Your task to perform on an android device: toggle notification dots Image 0: 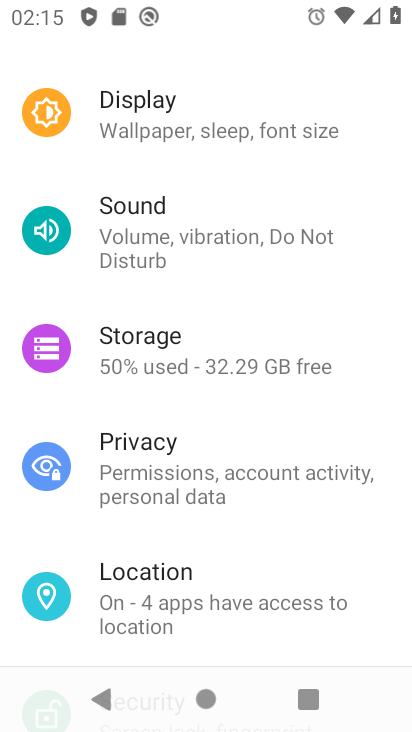
Step 0: drag from (230, 535) to (228, 282)
Your task to perform on an android device: toggle notification dots Image 1: 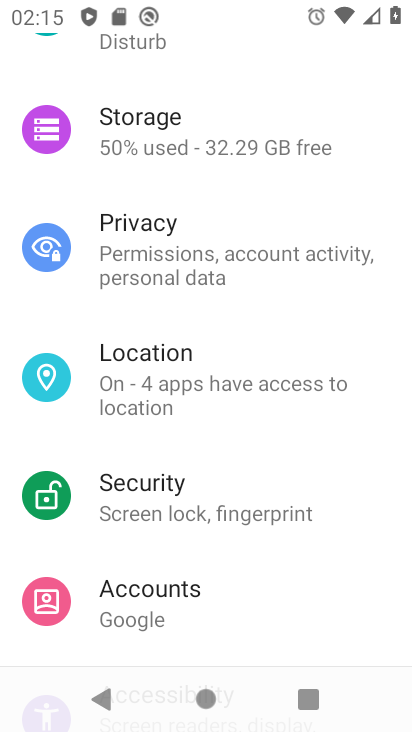
Step 1: drag from (140, 374) to (144, 593)
Your task to perform on an android device: toggle notification dots Image 2: 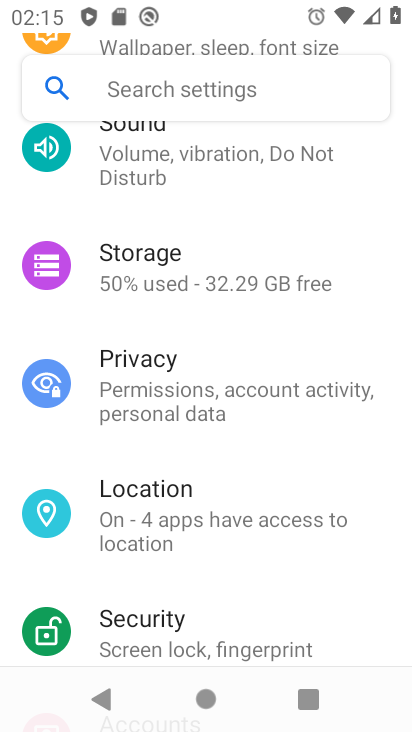
Step 2: drag from (232, 215) to (262, 622)
Your task to perform on an android device: toggle notification dots Image 3: 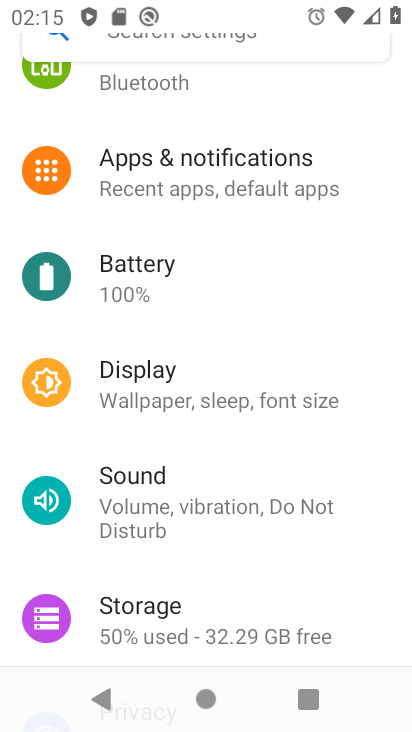
Step 3: click (218, 203)
Your task to perform on an android device: toggle notification dots Image 4: 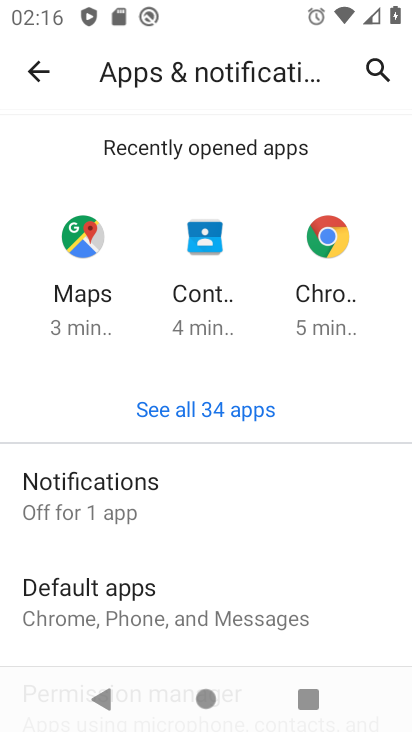
Step 4: click (209, 492)
Your task to perform on an android device: toggle notification dots Image 5: 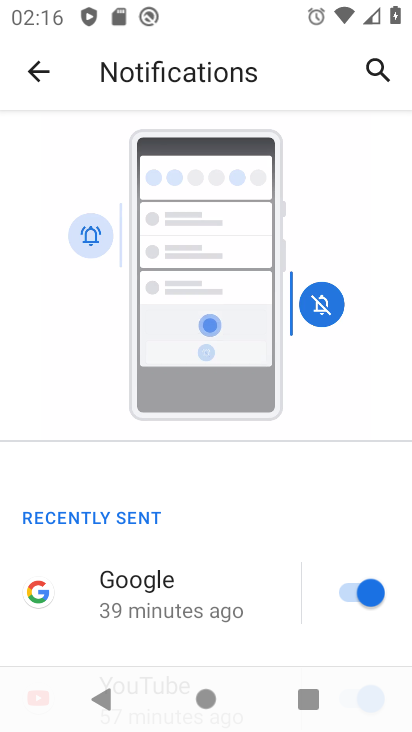
Step 5: drag from (228, 543) to (228, 307)
Your task to perform on an android device: toggle notification dots Image 6: 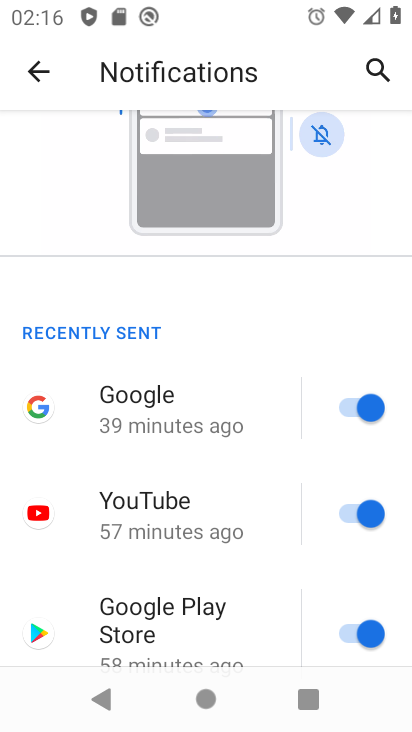
Step 6: drag from (191, 533) to (194, 217)
Your task to perform on an android device: toggle notification dots Image 7: 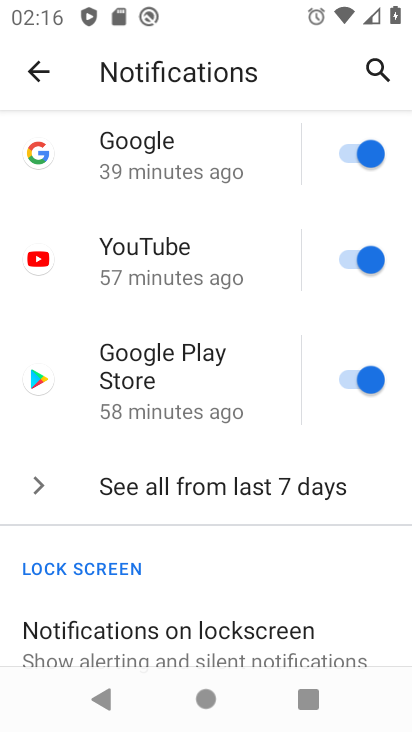
Step 7: drag from (205, 575) to (192, 295)
Your task to perform on an android device: toggle notification dots Image 8: 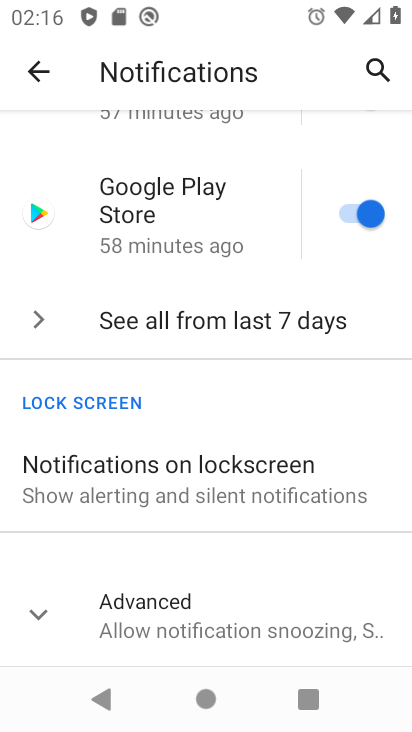
Step 8: click (200, 573)
Your task to perform on an android device: toggle notification dots Image 9: 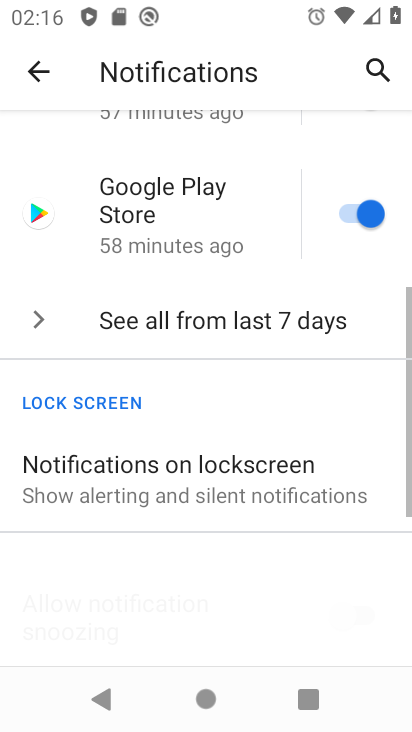
Step 9: drag from (200, 573) to (166, 249)
Your task to perform on an android device: toggle notification dots Image 10: 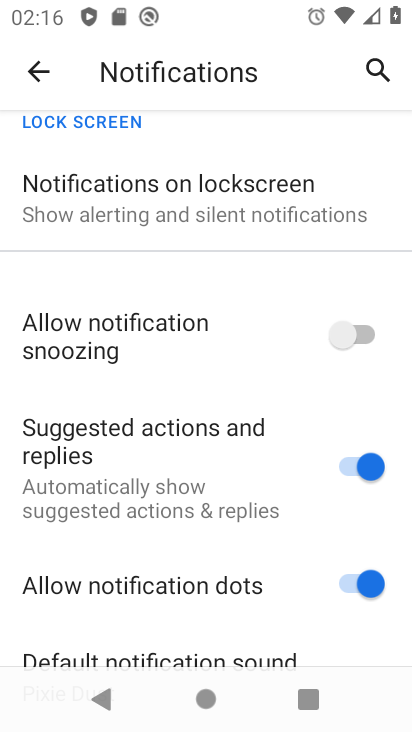
Step 10: drag from (240, 608) to (222, 244)
Your task to perform on an android device: toggle notification dots Image 11: 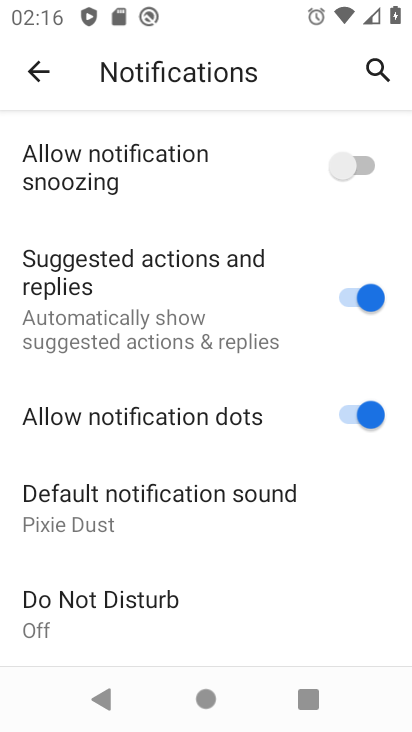
Step 11: click (293, 419)
Your task to perform on an android device: toggle notification dots Image 12: 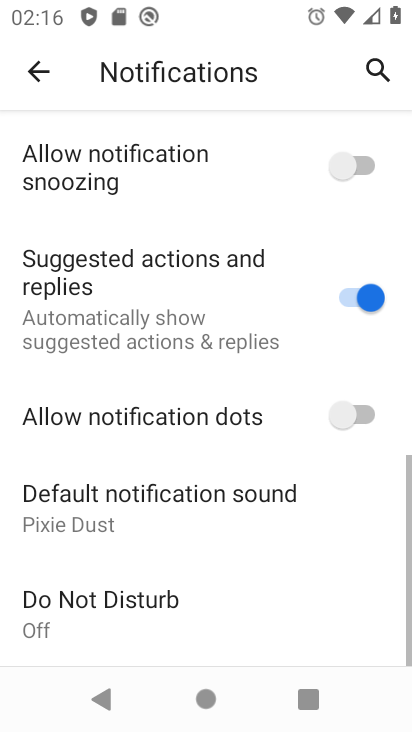
Step 12: task complete